Your task to perform on an android device: Go to eBay Image 0: 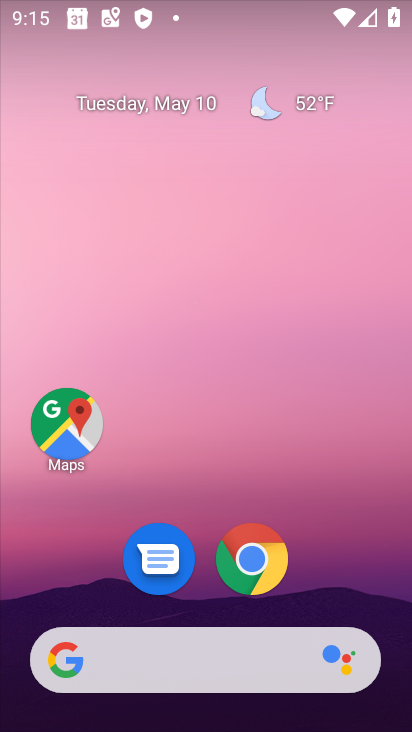
Step 0: drag from (354, 521) to (261, 34)
Your task to perform on an android device: Go to eBay Image 1: 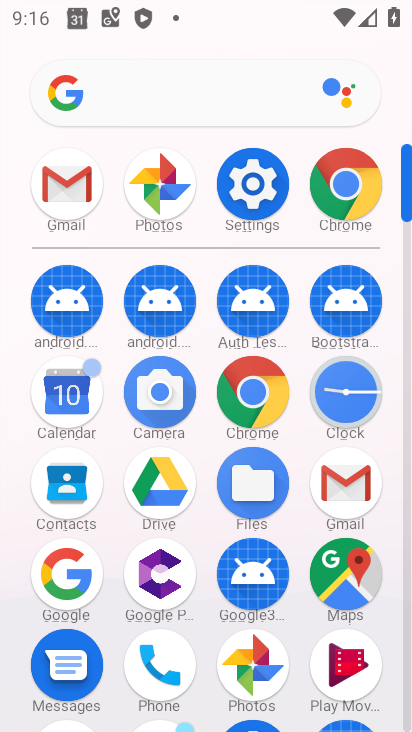
Step 1: drag from (4, 495) to (0, 252)
Your task to perform on an android device: Go to eBay Image 2: 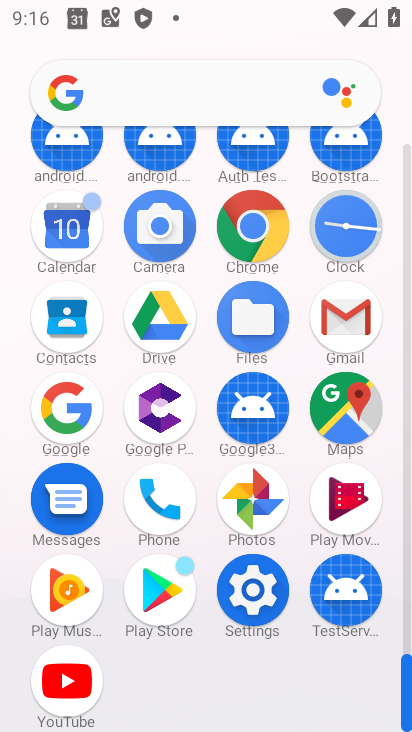
Step 2: click (251, 228)
Your task to perform on an android device: Go to eBay Image 3: 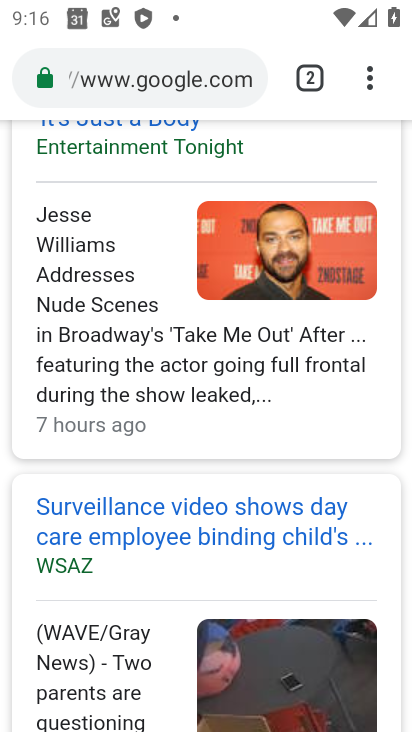
Step 3: click (192, 66)
Your task to perform on an android device: Go to eBay Image 4: 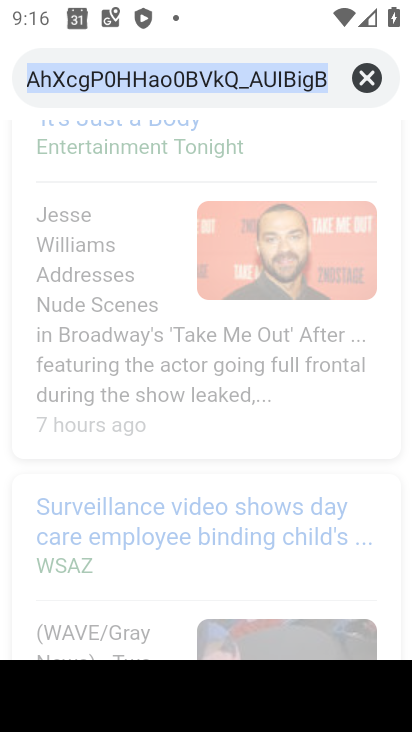
Step 4: click (362, 68)
Your task to perform on an android device: Go to eBay Image 5: 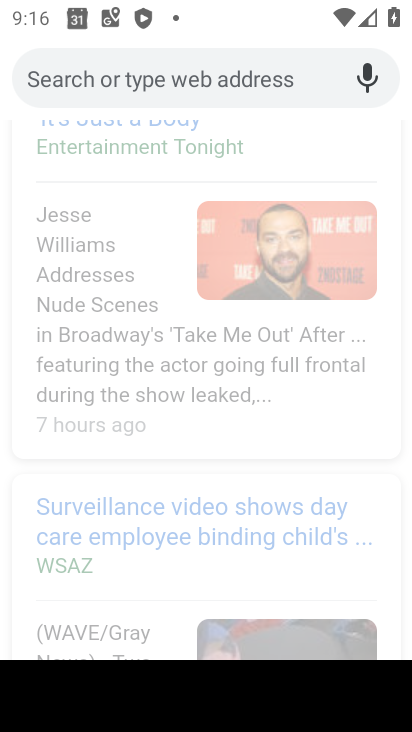
Step 5: type " eBay"
Your task to perform on an android device: Go to eBay Image 6: 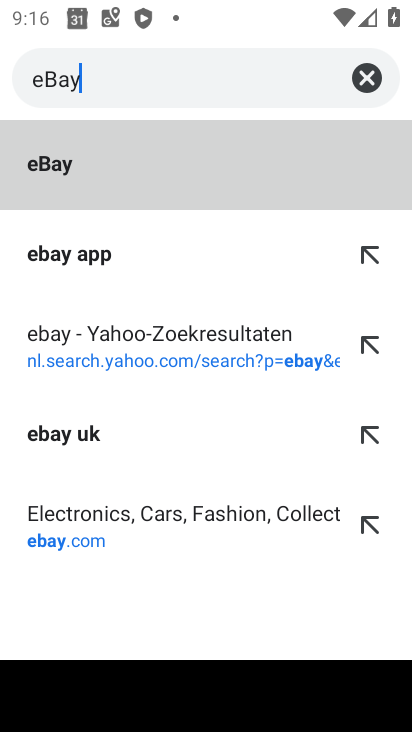
Step 6: type ""
Your task to perform on an android device: Go to eBay Image 7: 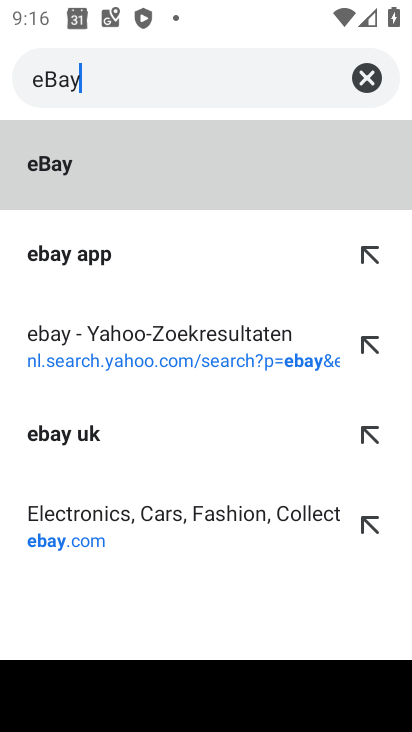
Step 7: click (92, 180)
Your task to perform on an android device: Go to eBay Image 8: 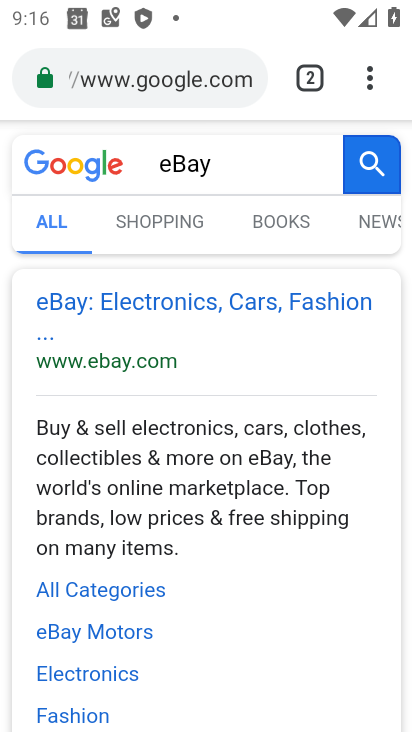
Step 8: drag from (219, 567) to (228, 449)
Your task to perform on an android device: Go to eBay Image 9: 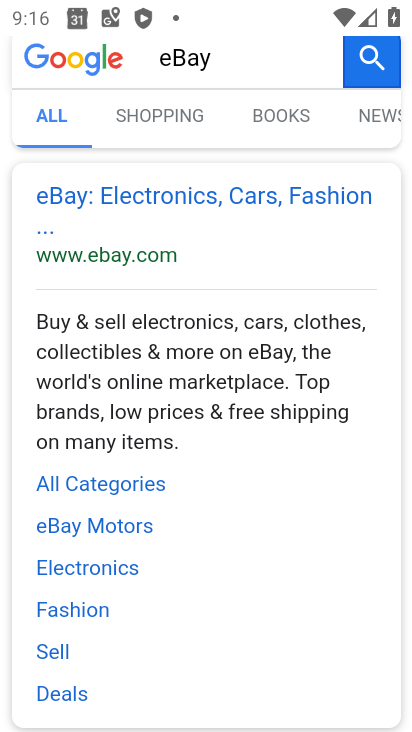
Step 9: click (105, 246)
Your task to perform on an android device: Go to eBay Image 10: 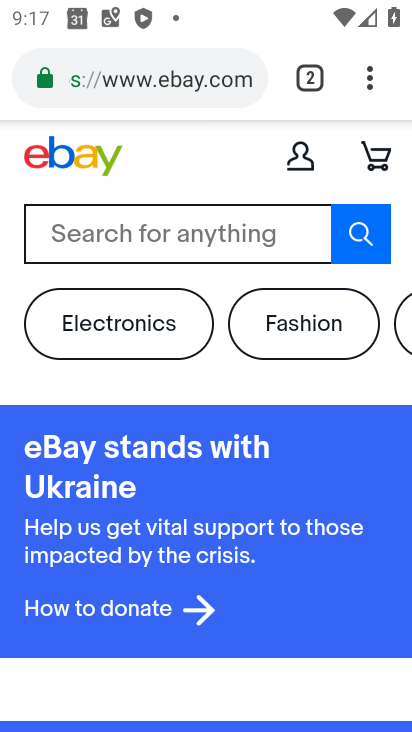
Step 10: task complete